Your task to perform on an android device: Open accessibility settings Image 0: 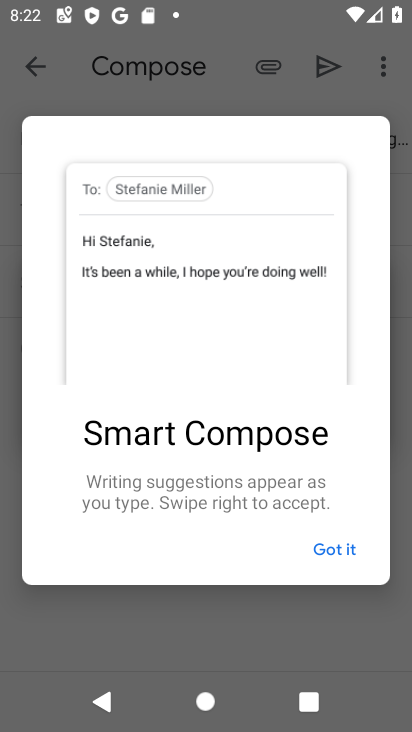
Step 0: press home button
Your task to perform on an android device: Open accessibility settings Image 1: 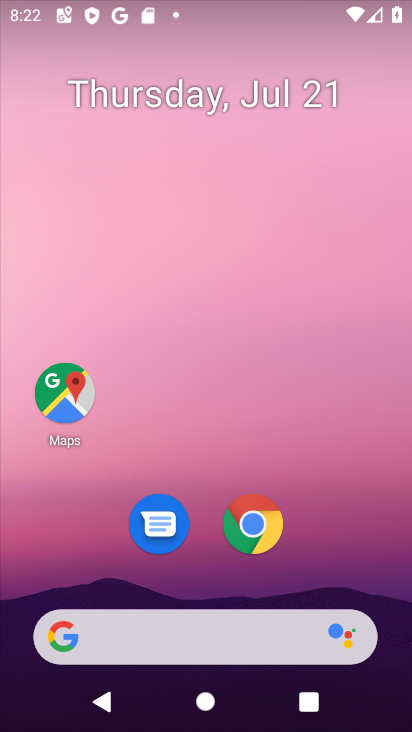
Step 1: drag from (206, 626) to (295, 151)
Your task to perform on an android device: Open accessibility settings Image 2: 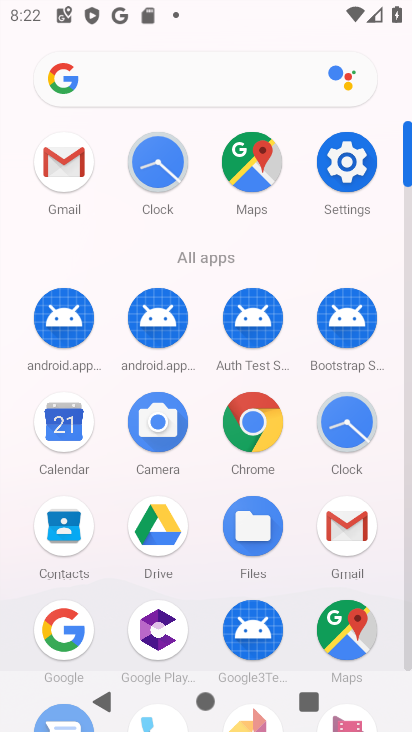
Step 2: click (351, 153)
Your task to perform on an android device: Open accessibility settings Image 3: 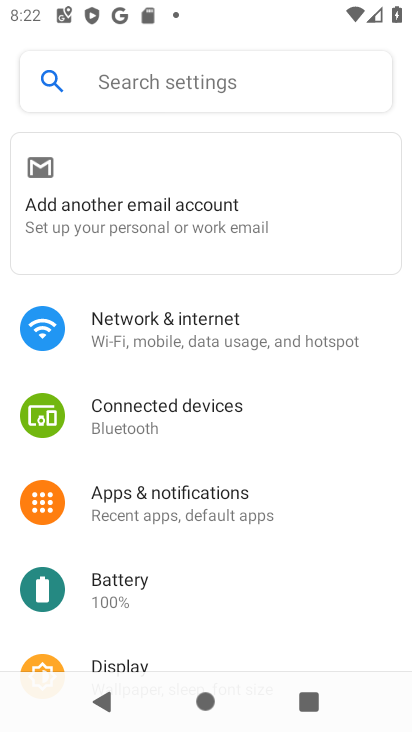
Step 3: drag from (226, 598) to (332, 140)
Your task to perform on an android device: Open accessibility settings Image 4: 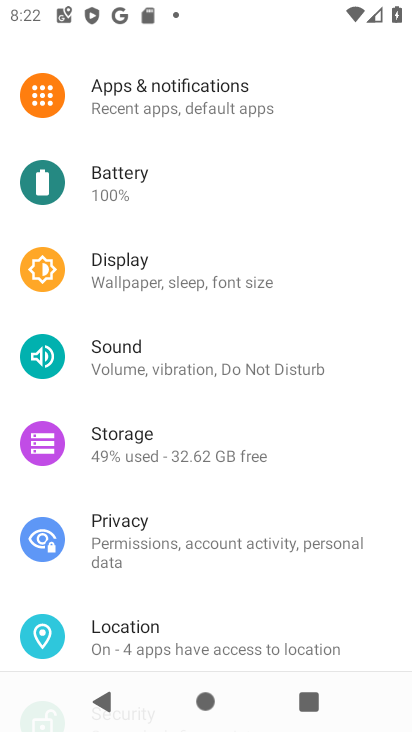
Step 4: drag from (228, 576) to (300, 119)
Your task to perform on an android device: Open accessibility settings Image 5: 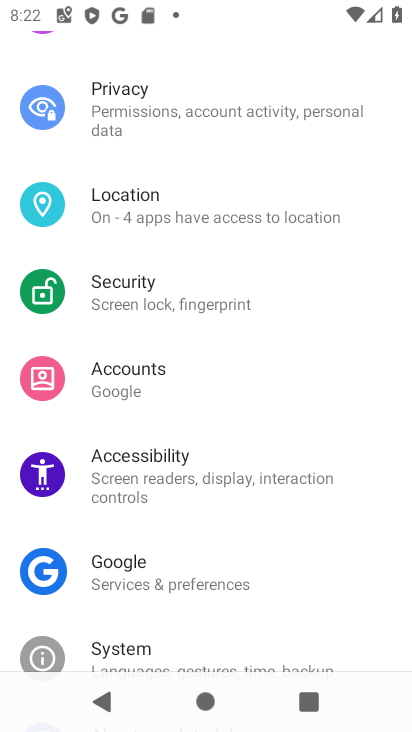
Step 5: click (179, 465)
Your task to perform on an android device: Open accessibility settings Image 6: 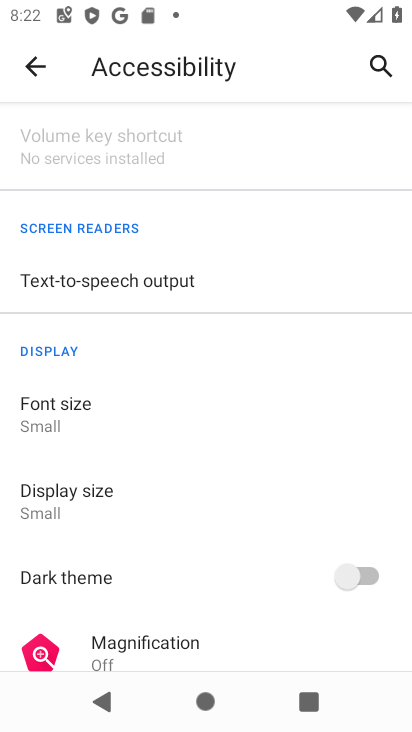
Step 6: task complete